Your task to perform on an android device: turn on the 24-hour format for clock Image 0: 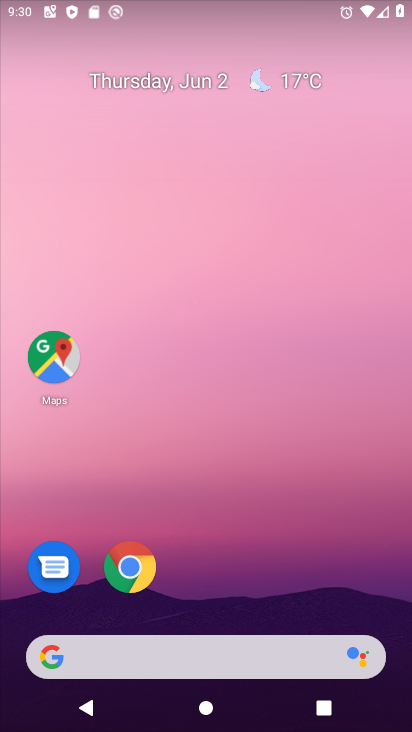
Step 0: drag from (224, 572) to (255, 340)
Your task to perform on an android device: turn on the 24-hour format for clock Image 1: 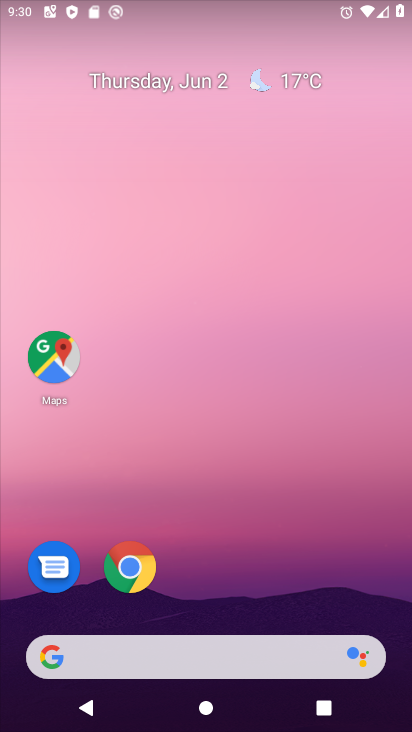
Step 1: drag from (194, 558) to (297, 0)
Your task to perform on an android device: turn on the 24-hour format for clock Image 2: 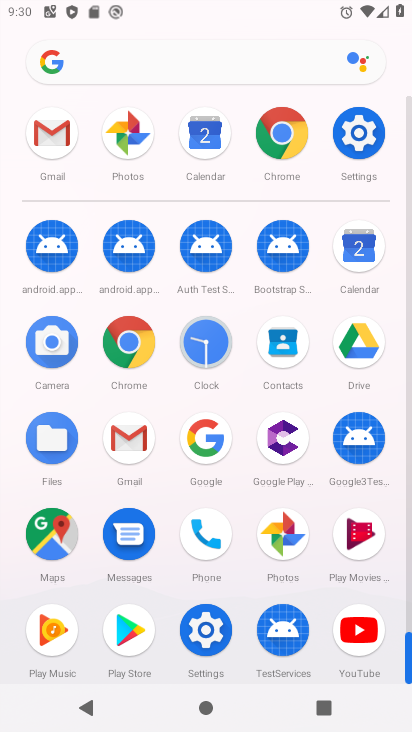
Step 2: click (196, 355)
Your task to perform on an android device: turn on the 24-hour format for clock Image 3: 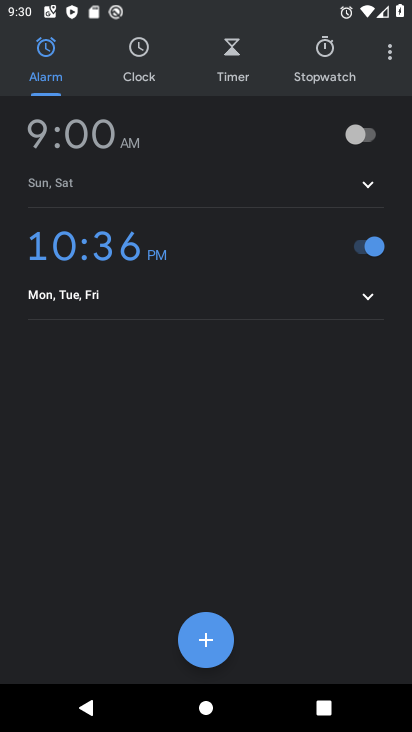
Step 3: press home button
Your task to perform on an android device: turn on the 24-hour format for clock Image 4: 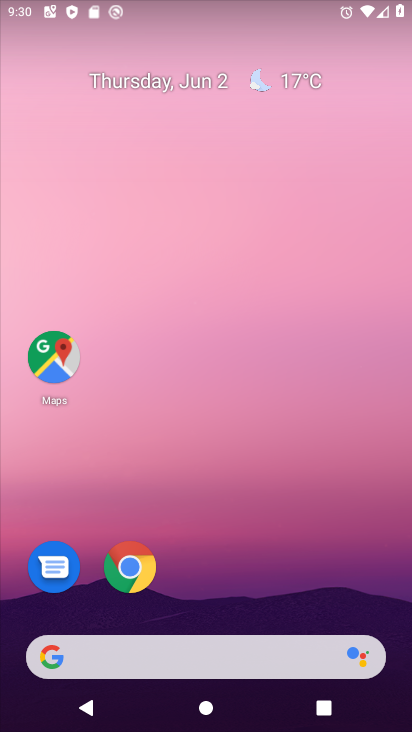
Step 4: drag from (219, 567) to (407, 516)
Your task to perform on an android device: turn on the 24-hour format for clock Image 5: 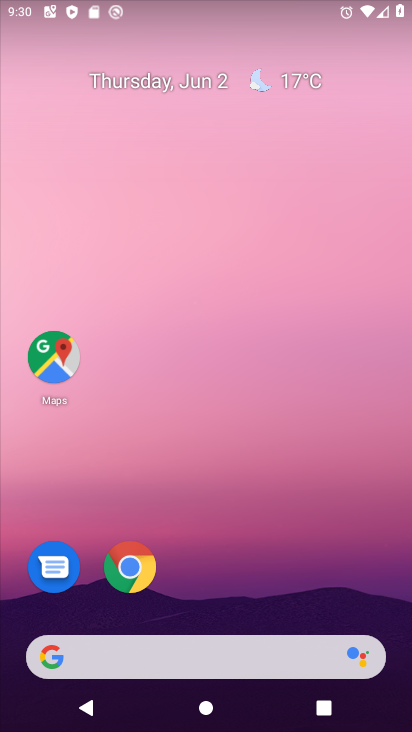
Step 5: drag from (220, 653) to (366, 5)
Your task to perform on an android device: turn on the 24-hour format for clock Image 6: 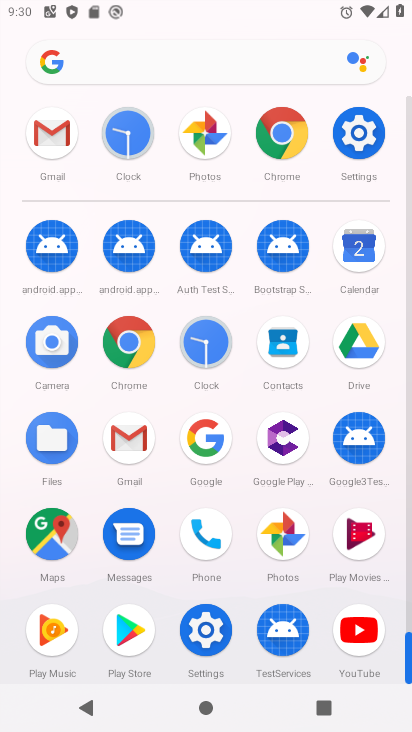
Step 6: click (205, 624)
Your task to perform on an android device: turn on the 24-hour format for clock Image 7: 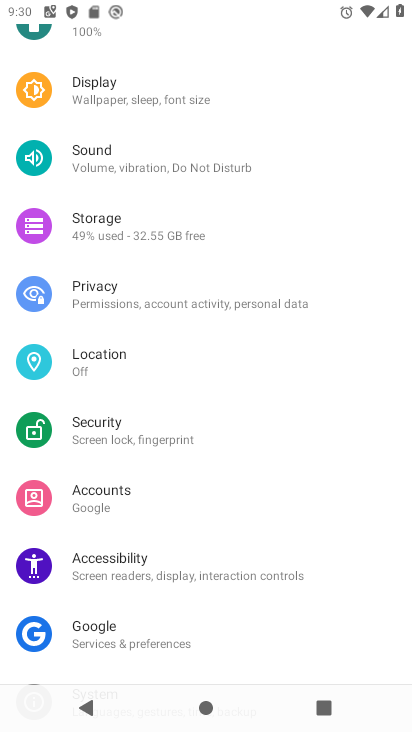
Step 7: drag from (153, 549) to (184, 350)
Your task to perform on an android device: turn on the 24-hour format for clock Image 8: 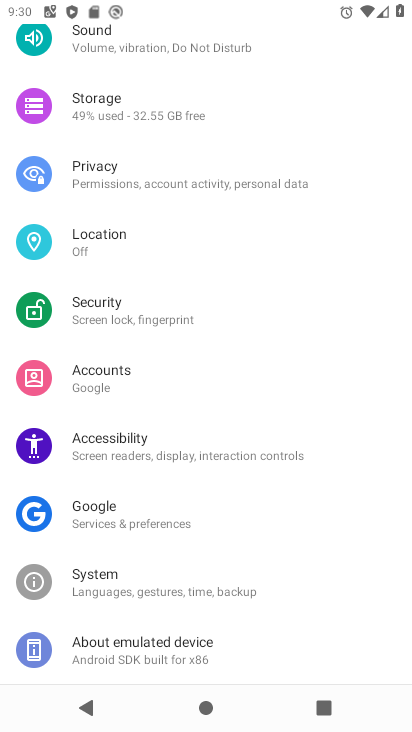
Step 8: click (124, 589)
Your task to perform on an android device: turn on the 24-hour format for clock Image 9: 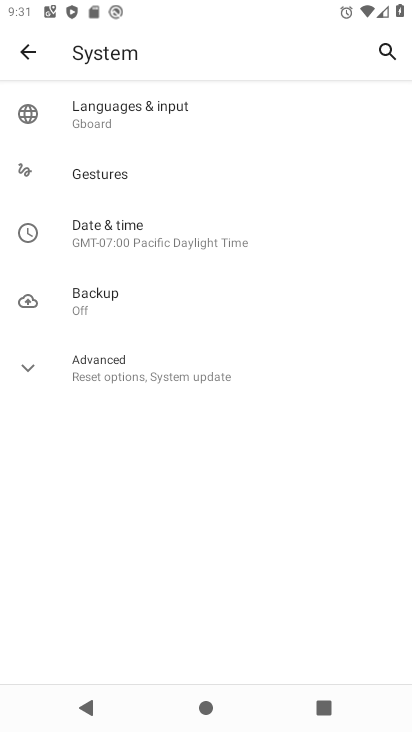
Step 9: click (126, 246)
Your task to perform on an android device: turn on the 24-hour format for clock Image 10: 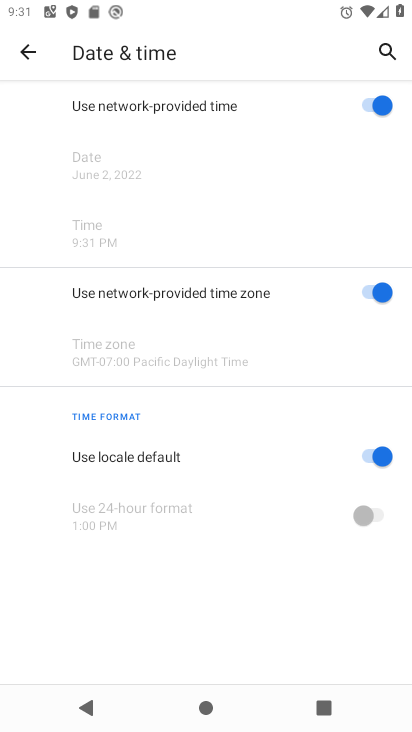
Step 10: click (363, 450)
Your task to perform on an android device: turn on the 24-hour format for clock Image 11: 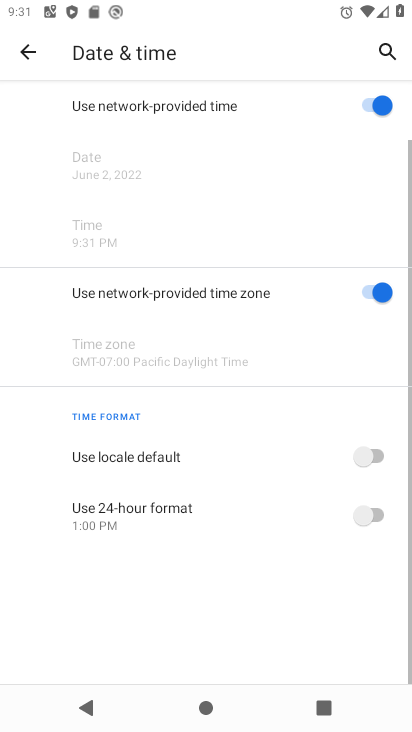
Step 11: click (386, 504)
Your task to perform on an android device: turn on the 24-hour format for clock Image 12: 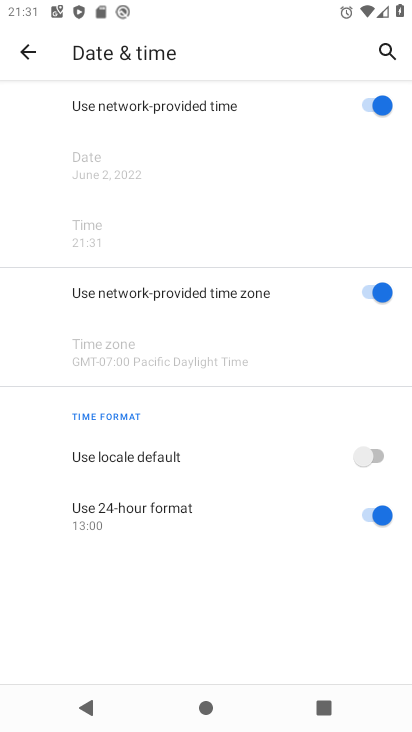
Step 12: task complete